Your task to perform on an android device: How much does the HisenseTV cost? Image 0: 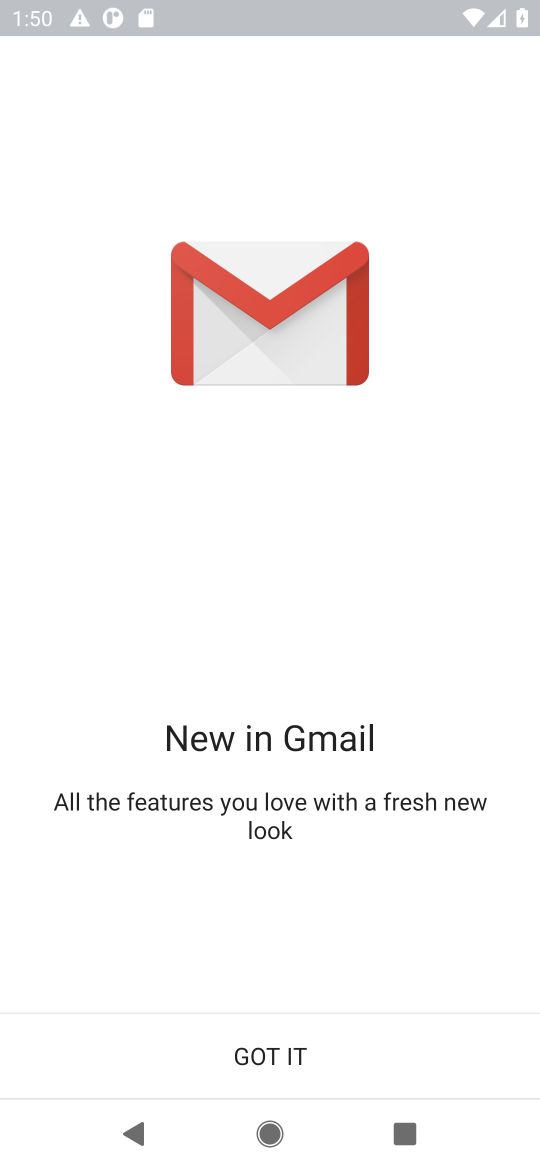
Step 0: drag from (325, 838) to (534, 535)
Your task to perform on an android device: How much does the HisenseTV cost? Image 1: 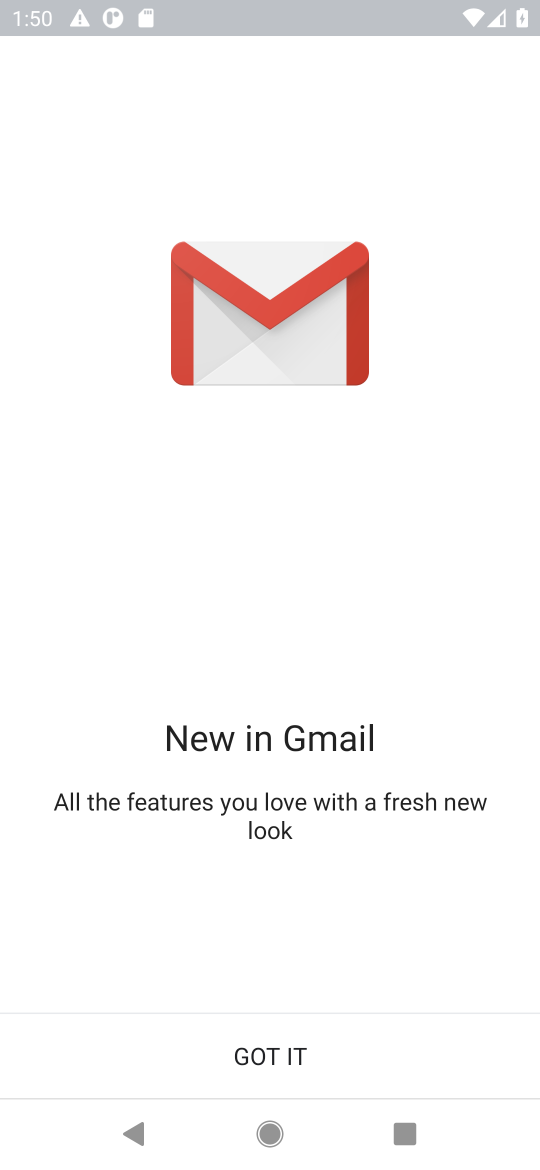
Step 1: press home button
Your task to perform on an android device: How much does the HisenseTV cost? Image 2: 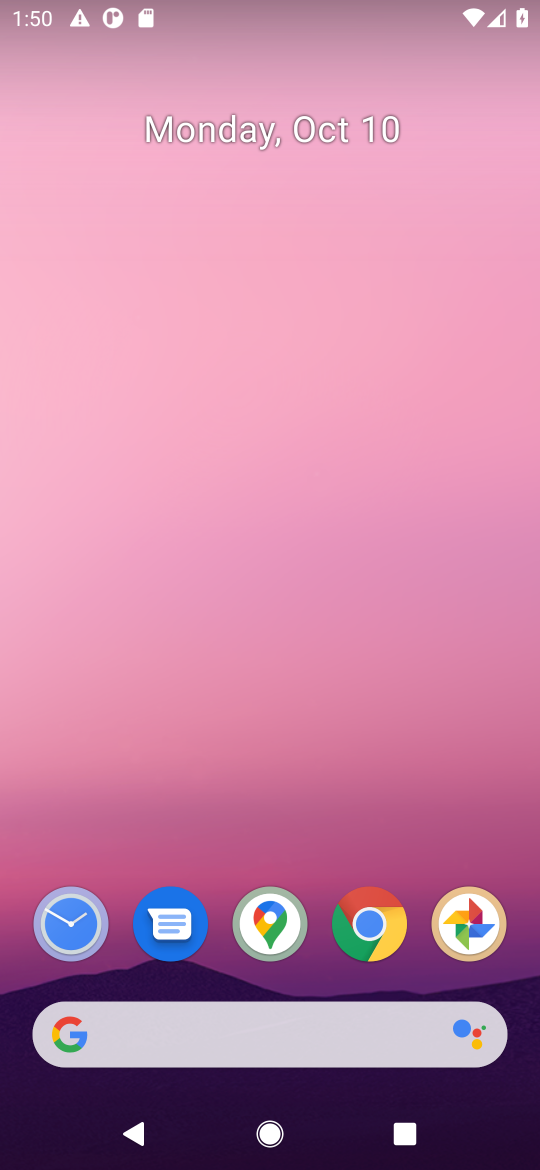
Step 2: drag from (358, 855) to (461, 16)
Your task to perform on an android device: How much does the HisenseTV cost? Image 3: 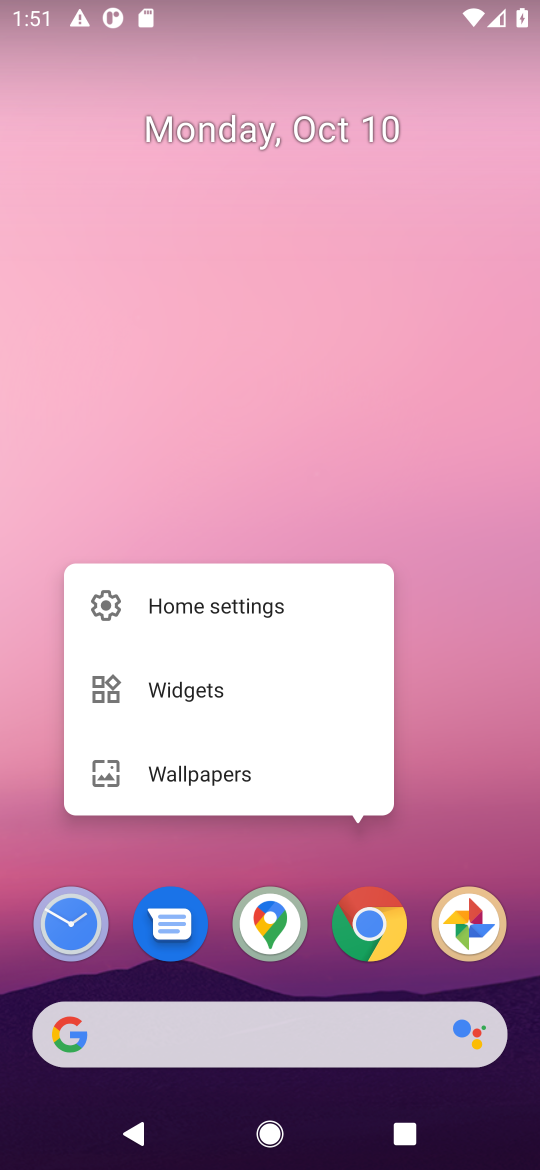
Step 3: click (480, 760)
Your task to perform on an android device: How much does the HisenseTV cost? Image 4: 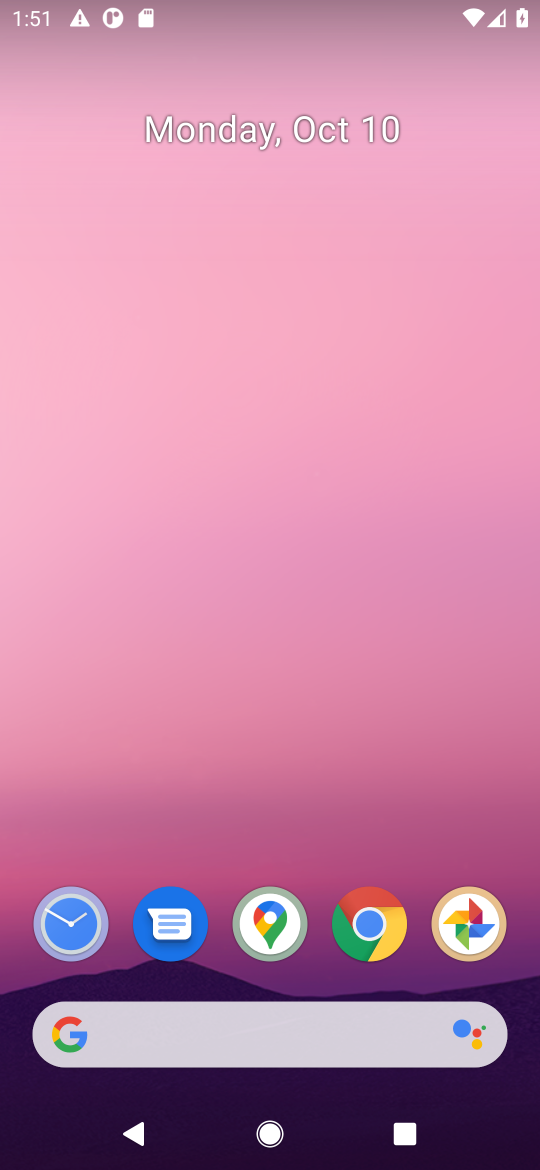
Step 4: click (364, 918)
Your task to perform on an android device: How much does the HisenseTV cost? Image 5: 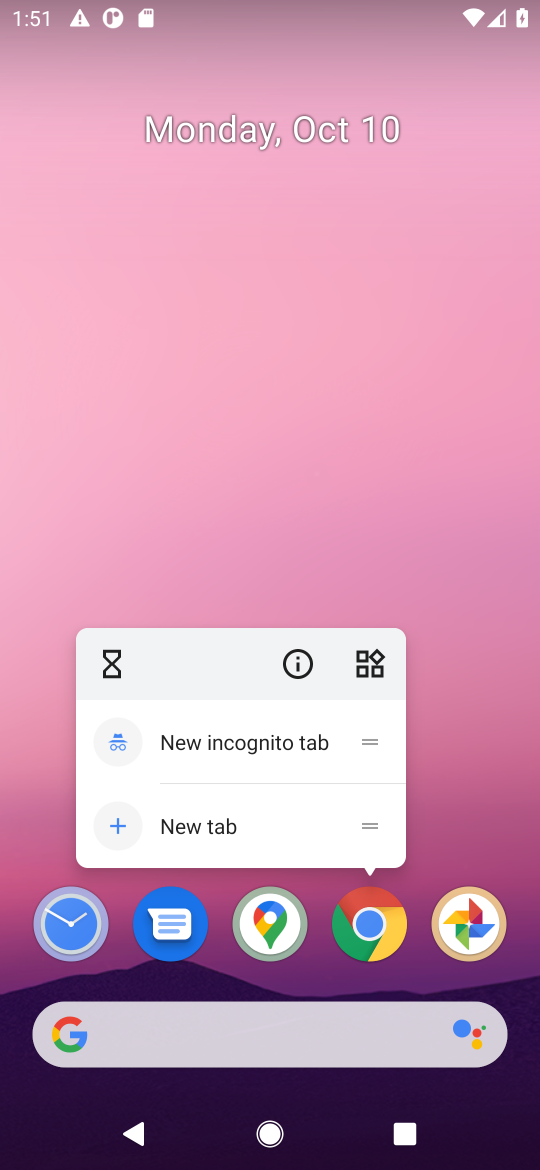
Step 5: click (364, 918)
Your task to perform on an android device: How much does the HisenseTV cost? Image 6: 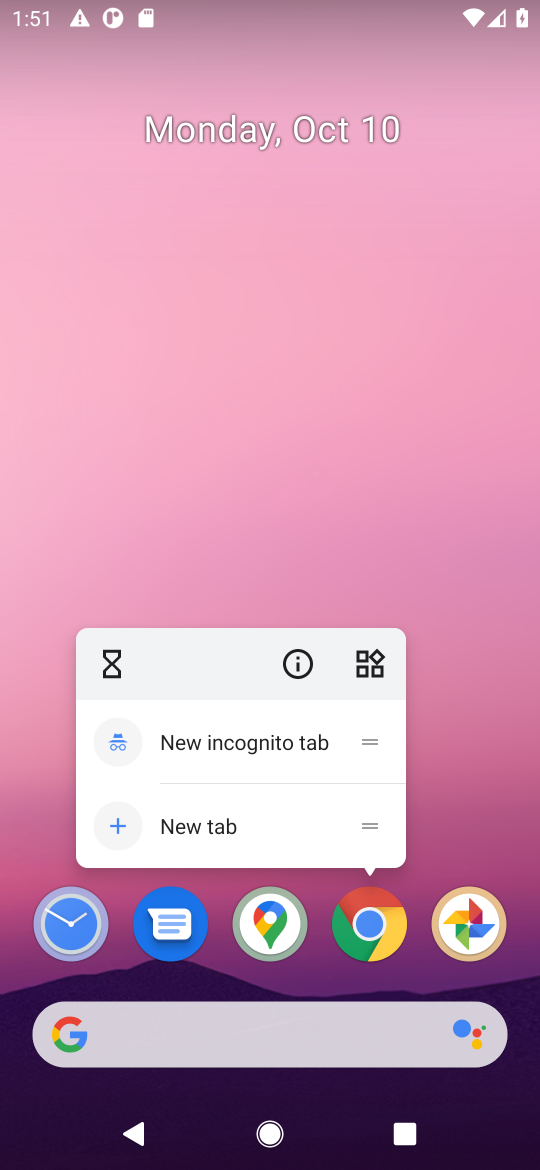
Step 6: click (364, 918)
Your task to perform on an android device: How much does the HisenseTV cost? Image 7: 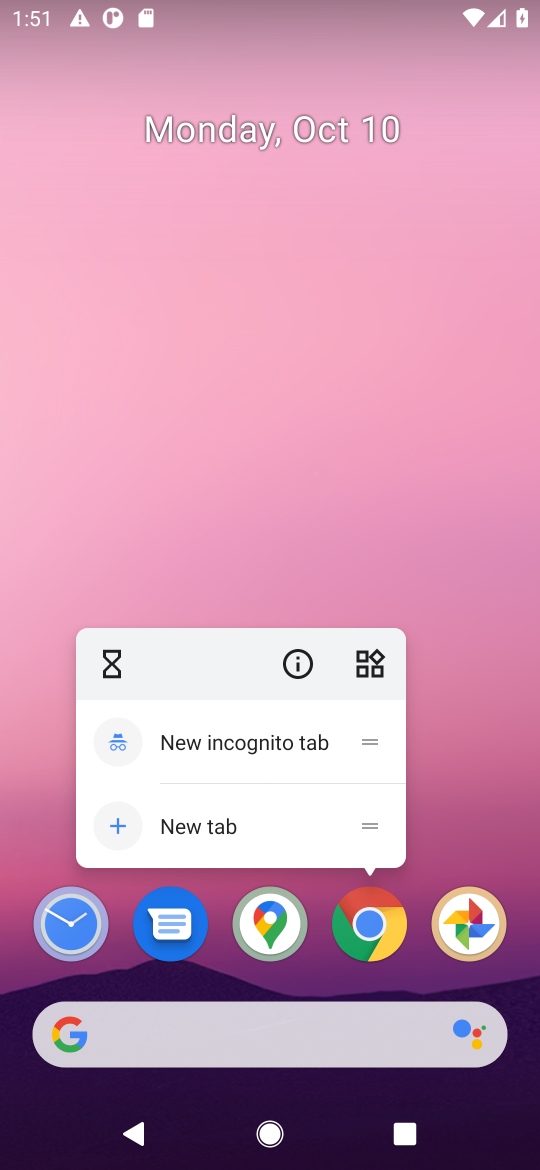
Step 7: click (364, 918)
Your task to perform on an android device: How much does the HisenseTV cost? Image 8: 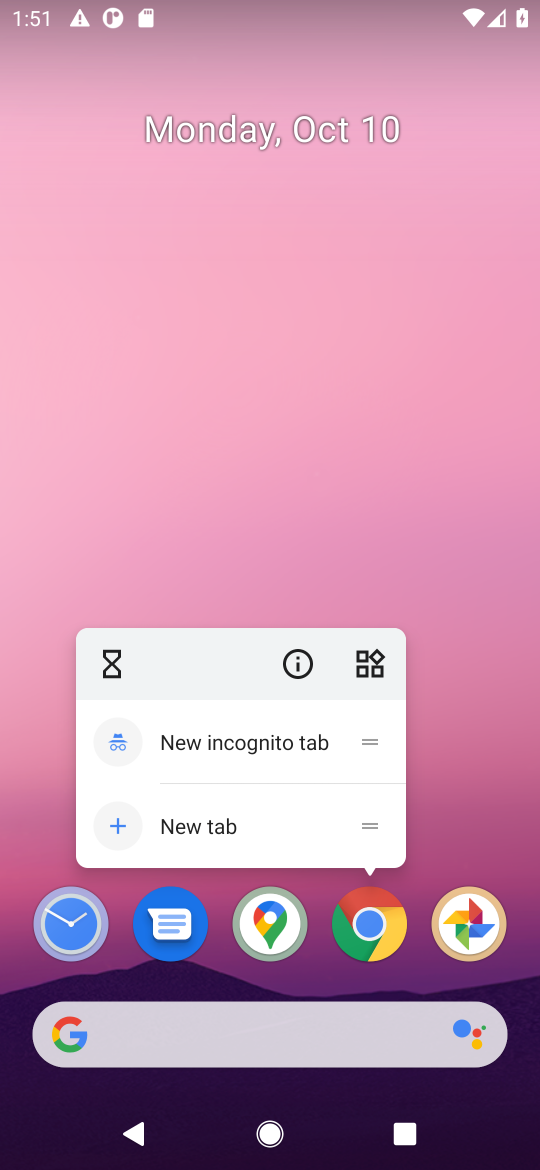
Step 8: click (375, 936)
Your task to perform on an android device: How much does the HisenseTV cost? Image 9: 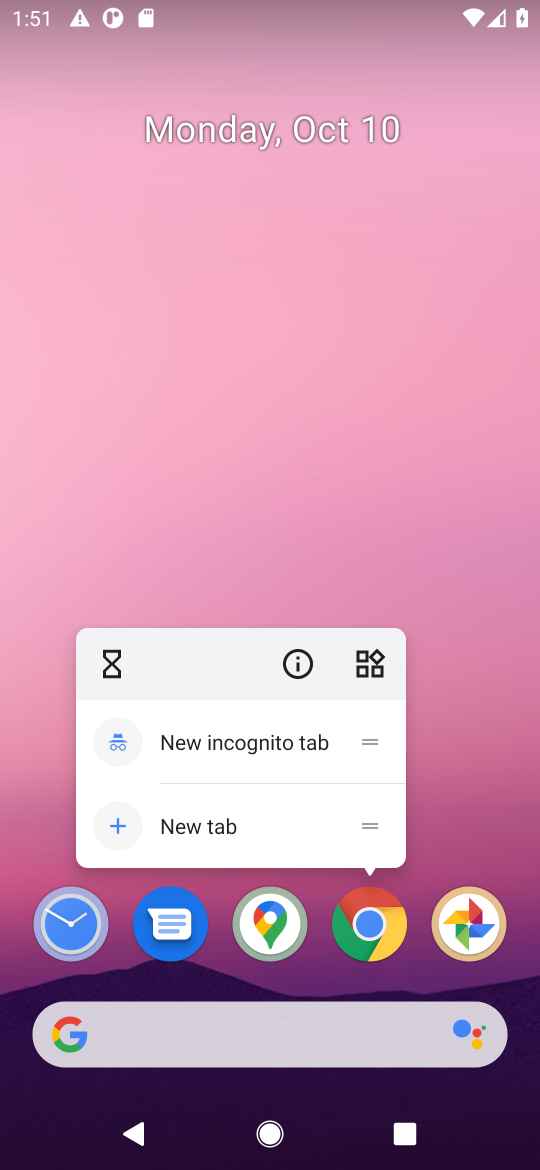
Step 9: drag from (485, 533) to (499, 57)
Your task to perform on an android device: How much does the HisenseTV cost? Image 10: 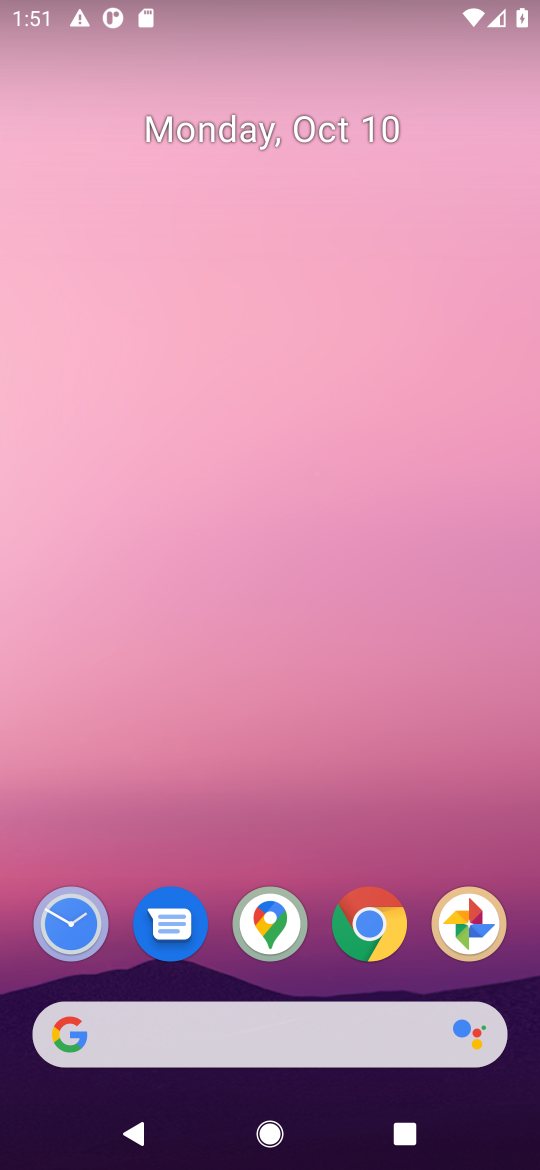
Step 10: drag from (310, 843) to (271, 141)
Your task to perform on an android device: How much does the HisenseTV cost? Image 11: 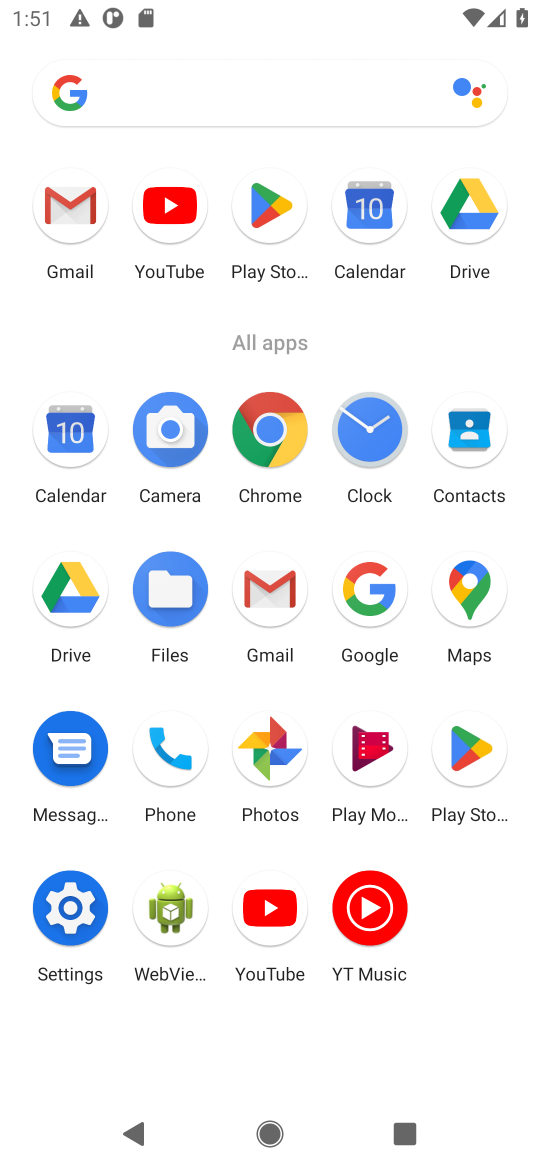
Step 11: click (276, 420)
Your task to perform on an android device: How much does the HisenseTV cost? Image 12: 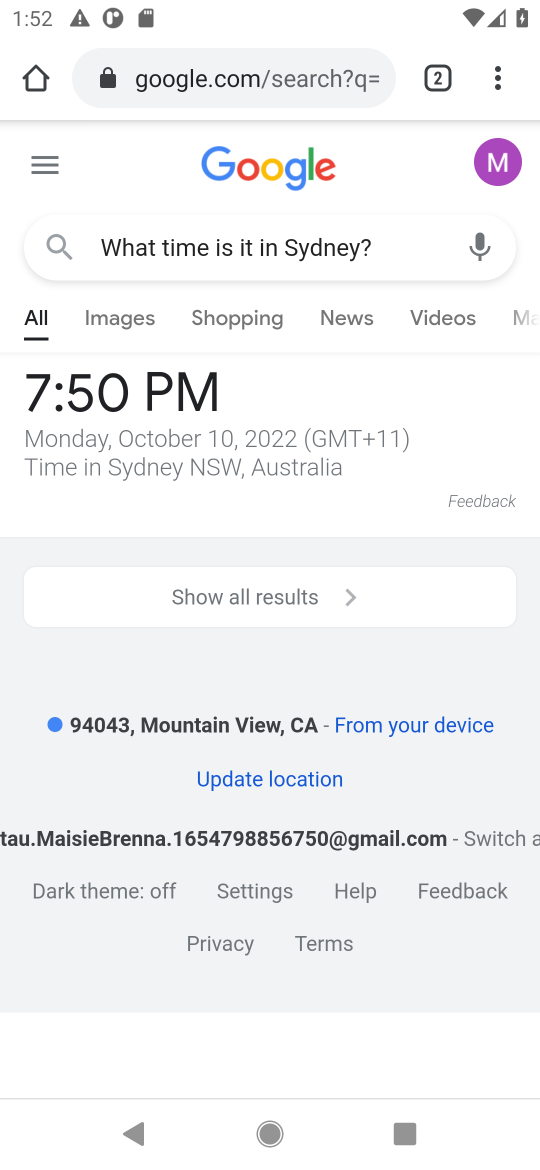
Step 12: task complete